Your task to perform on an android device: turn off sleep mode Image 0: 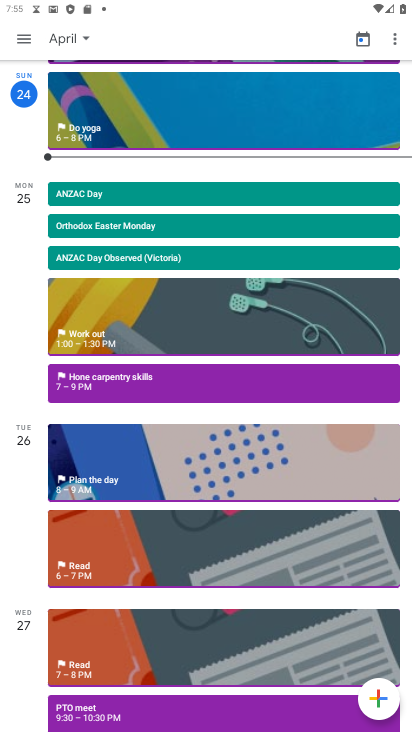
Step 0: press home button
Your task to perform on an android device: turn off sleep mode Image 1: 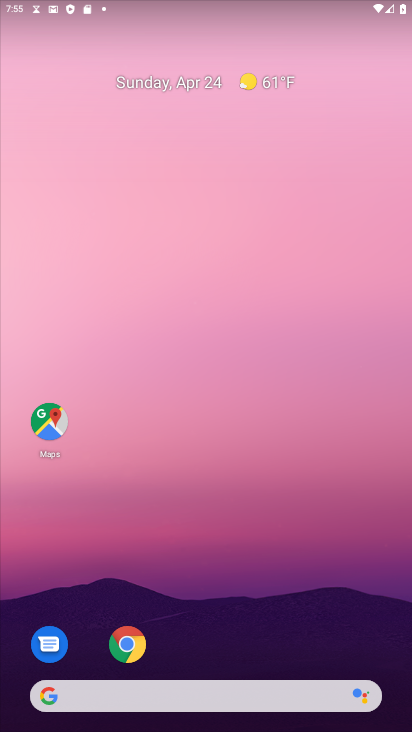
Step 1: drag from (242, 683) to (227, 210)
Your task to perform on an android device: turn off sleep mode Image 2: 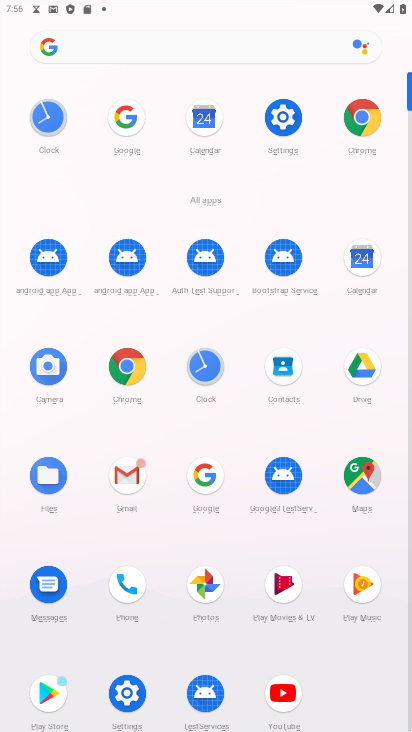
Step 2: click (277, 128)
Your task to perform on an android device: turn off sleep mode Image 3: 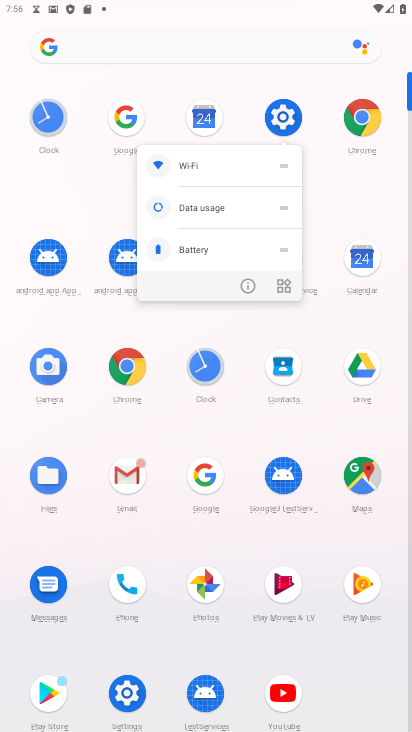
Step 3: click (274, 118)
Your task to perform on an android device: turn off sleep mode Image 4: 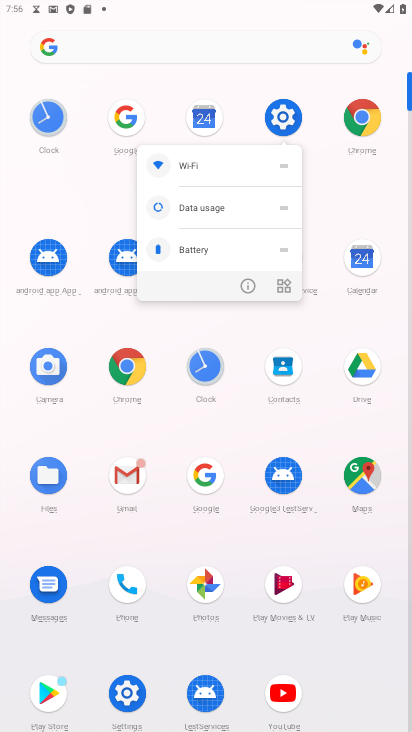
Step 4: click (274, 118)
Your task to perform on an android device: turn off sleep mode Image 5: 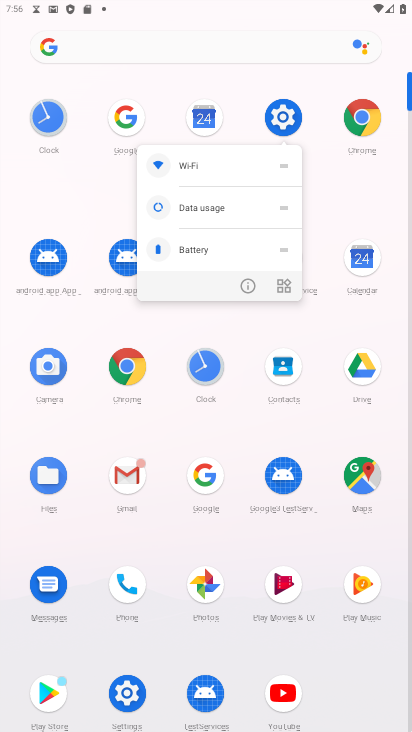
Step 5: click (274, 118)
Your task to perform on an android device: turn off sleep mode Image 6: 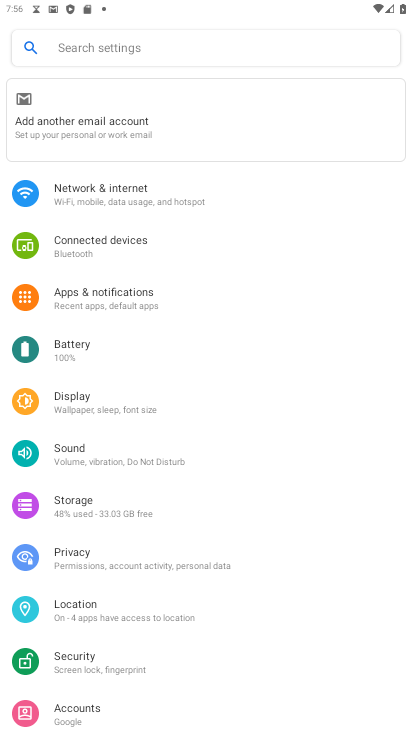
Step 6: click (95, 403)
Your task to perform on an android device: turn off sleep mode Image 7: 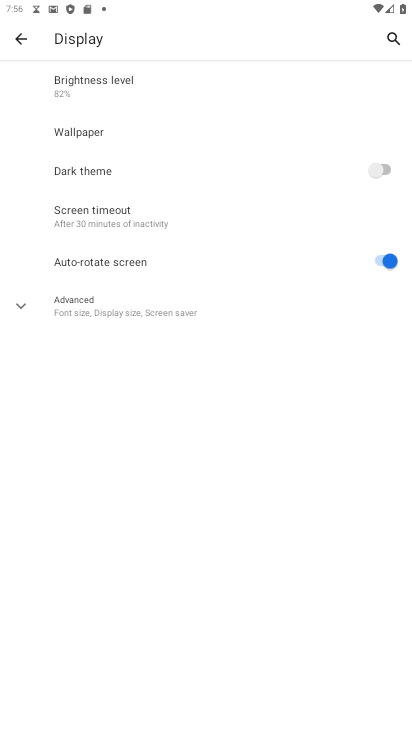
Step 7: click (88, 312)
Your task to perform on an android device: turn off sleep mode Image 8: 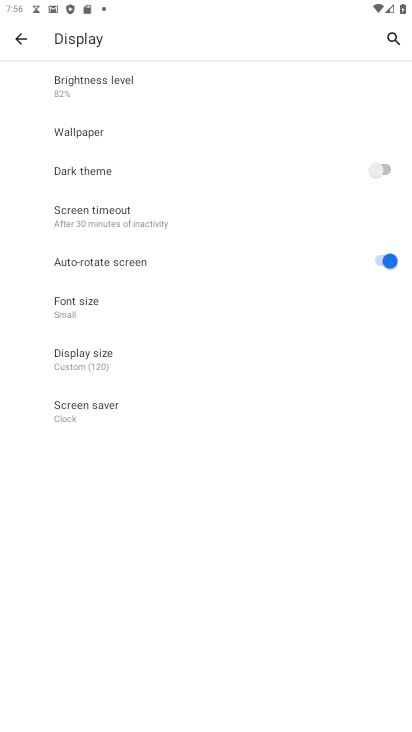
Step 8: task complete